Your task to perform on an android device: turn off notifications settings in the gmail app Image 0: 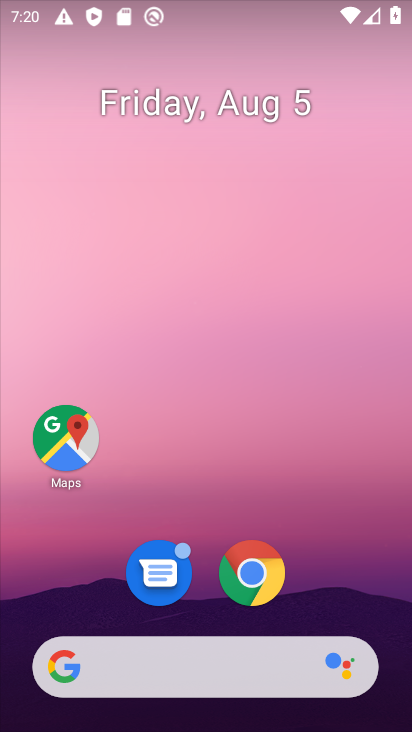
Step 0: drag from (213, 489) to (263, 0)
Your task to perform on an android device: turn off notifications settings in the gmail app Image 1: 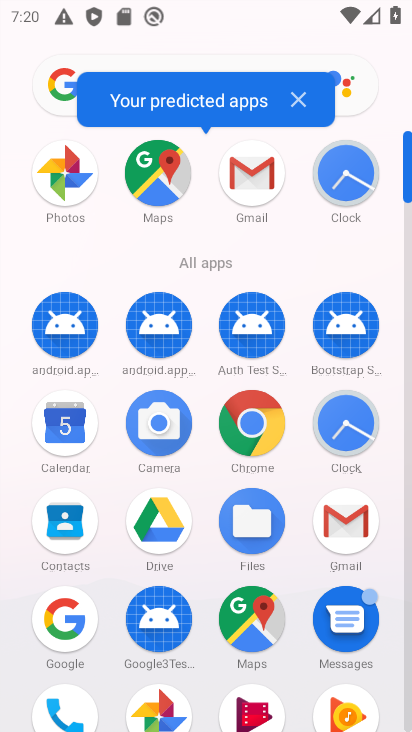
Step 1: click (248, 185)
Your task to perform on an android device: turn off notifications settings in the gmail app Image 2: 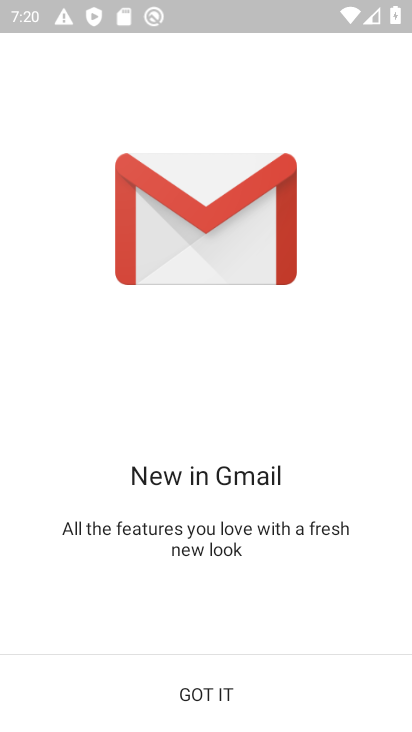
Step 2: click (305, 677)
Your task to perform on an android device: turn off notifications settings in the gmail app Image 3: 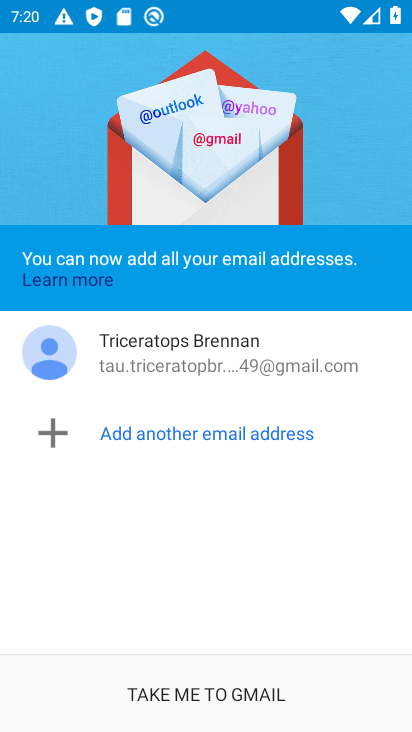
Step 3: click (303, 677)
Your task to perform on an android device: turn off notifications settings in the gmail app Image 4: 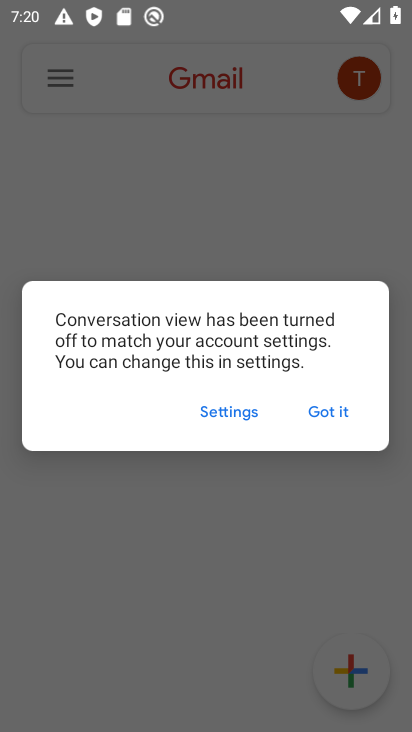
Step 4: click (331, 410)
Your task to perform on an android device: turn off notifications settings in the gmail app Image 5: 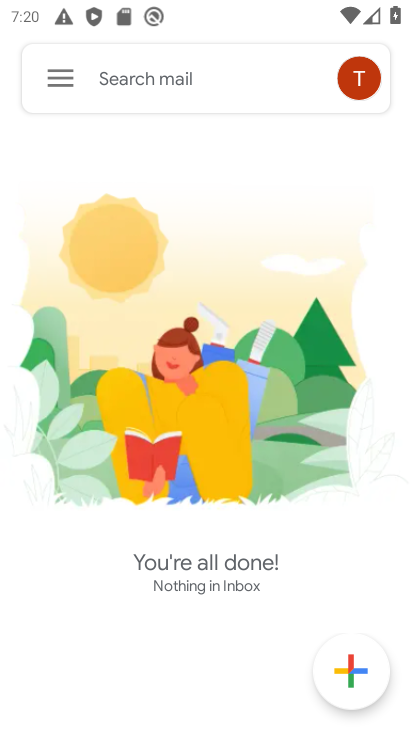
Step 5: click (62, 68)
Your task to perform on an android device: turn off notifications settings in the gmail app Image 6: 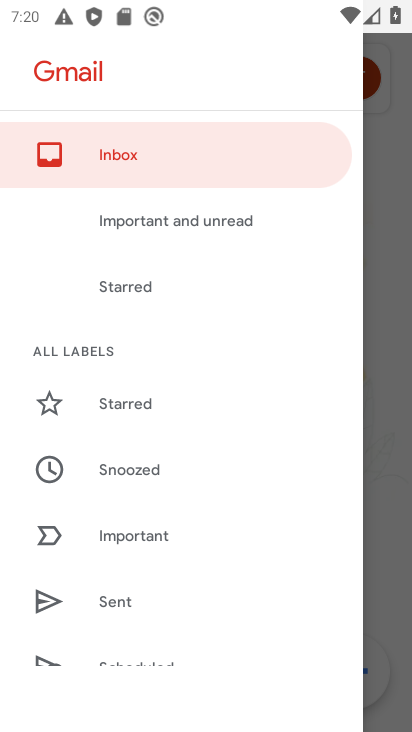
Step 6: drag from (179, 577) to (222, 0)
Your task to perform on an android device: turn off notifications settings in the gmail app Image 7: 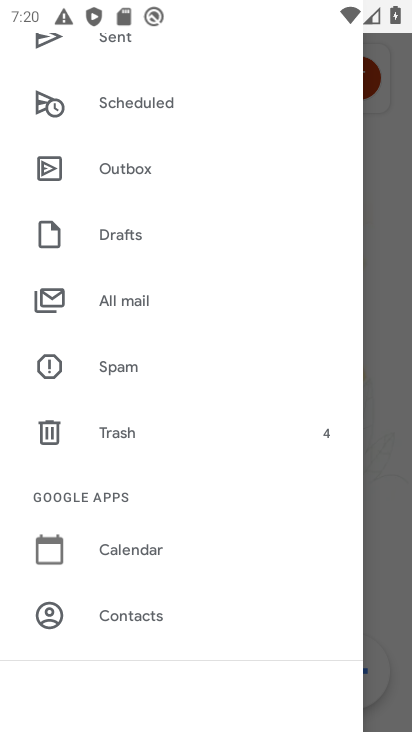
Step 7: drag from (171, 458) to (217, 187)
Your task to perform on an android device: turn off notifications settings in the gmail app Image 8: 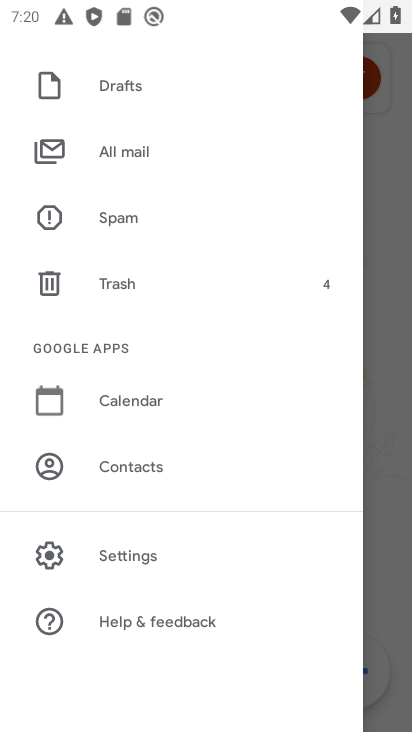
Step 8: click (140, 548)
Your task to perform on an android device: turn off notifications settings in the gmail app Image 9: 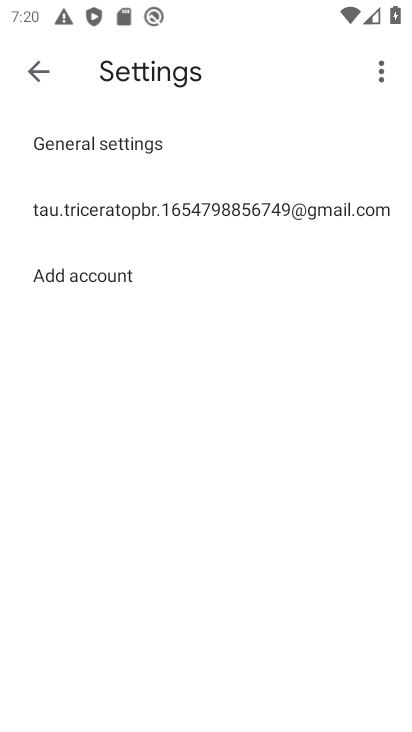
Step 9: click (347, 210)
Your task to perform on an android device: turn off notifications settings in the gmail app Image 10: 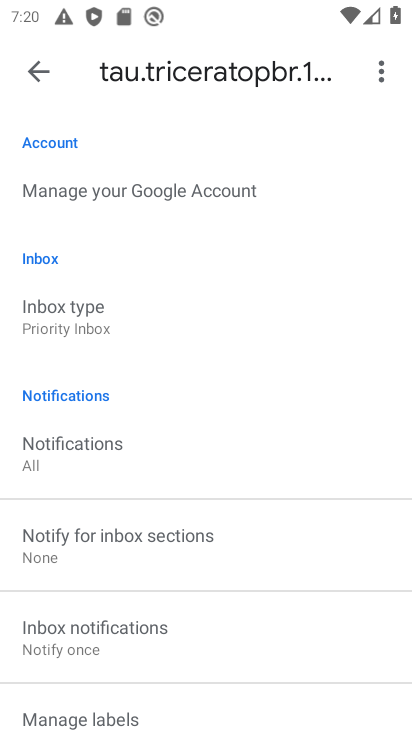
Step 10: drag from (232, 434) to (233, 0)
Your task to perform on an android device: turn off notifications settings in the gmail app Image 11: 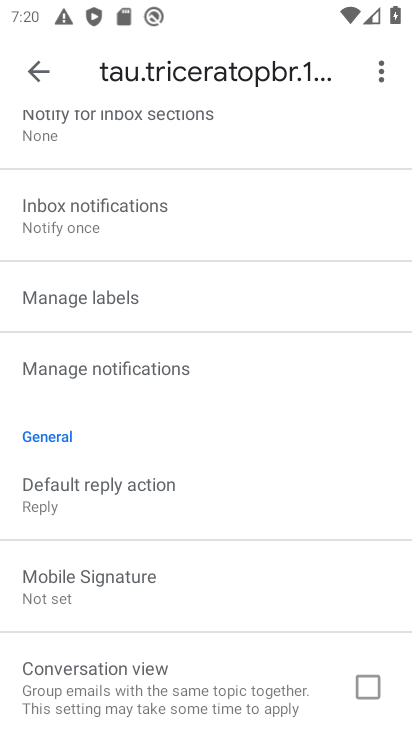
Step 11: click (198, 373)
Your task to perform on an android device: turn off notifications settings in the gmail app Image 12: 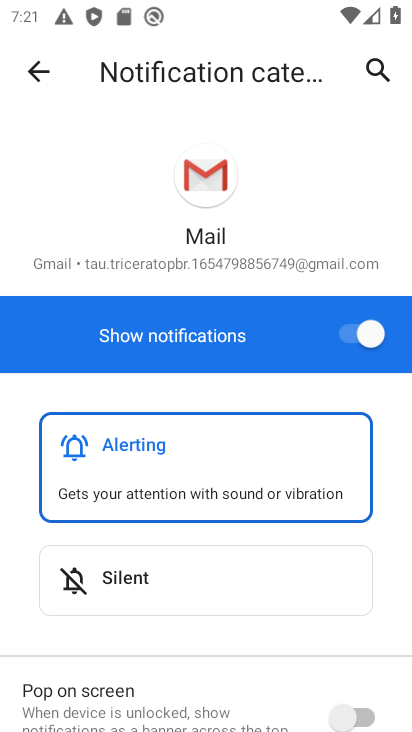
Step 12: click (363, 325)
Your task to perform on an android device: turn off notifications settings in the gmail app Image 13: 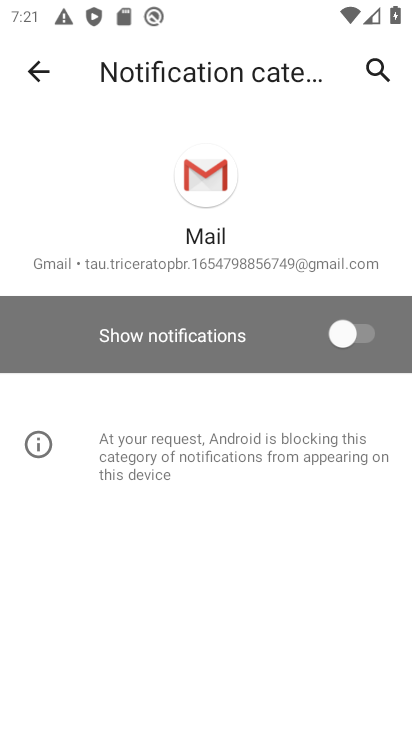
Step 13: task complete